Your task to perform on an android device: turn on sleep mode Image 0: 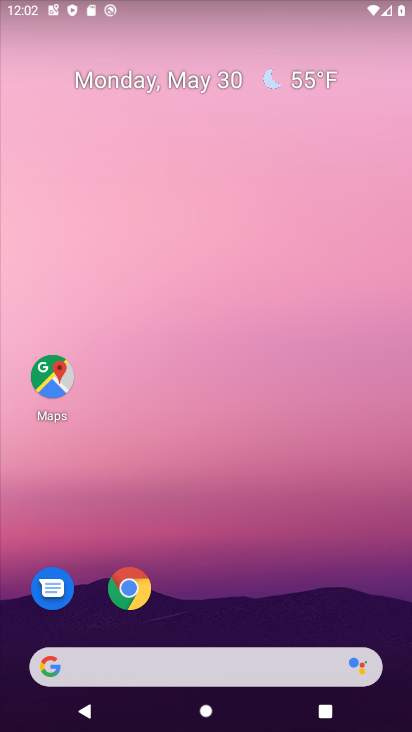
Step 0: drag from (269, 394) to (311, 0)
Your task to perform on an android device: turn on sleep mode Image 1: 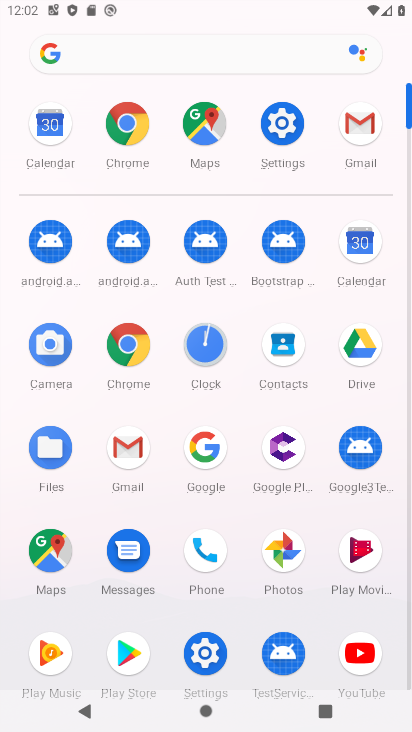
Step 1: click (276, 113)
Your task to perform on an android device: turn on sleep mode Image 2: 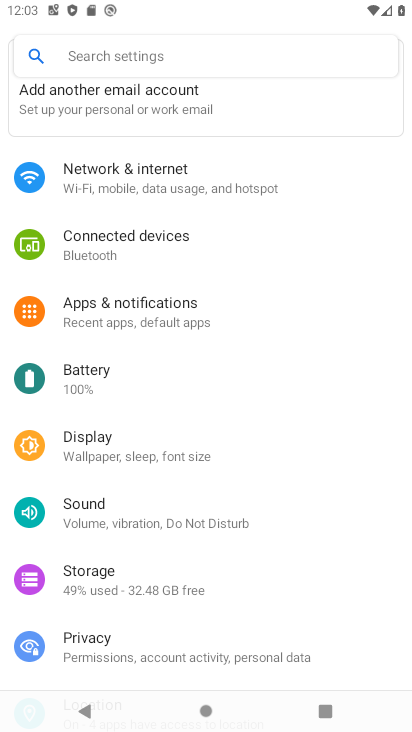
Step 2: click (109, 444)
Your task to perform on an android device: turn on sleep mode Image 3: 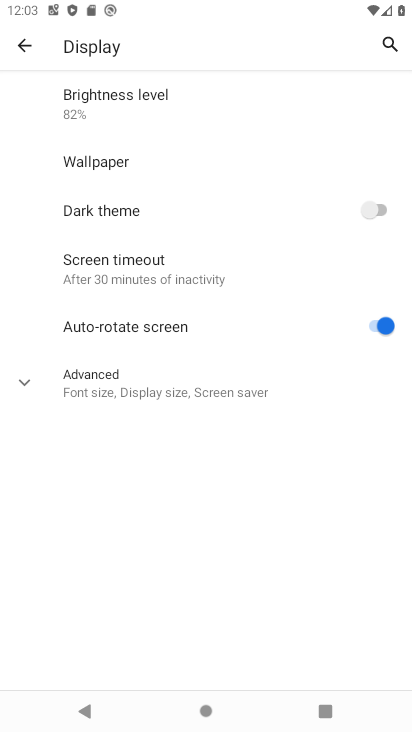
Step 3: click (131, 283)
Your task to perform on an android device: turn on sleep mode Image 4: 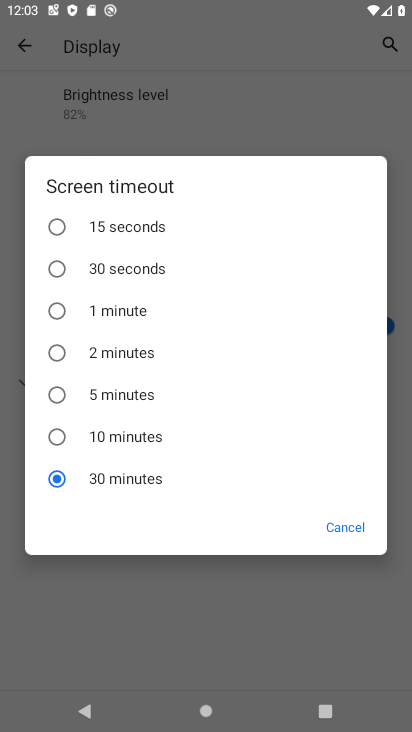
Step 4: task complete